Your task to perform on an android device: Toggle the flashlight Image 0: 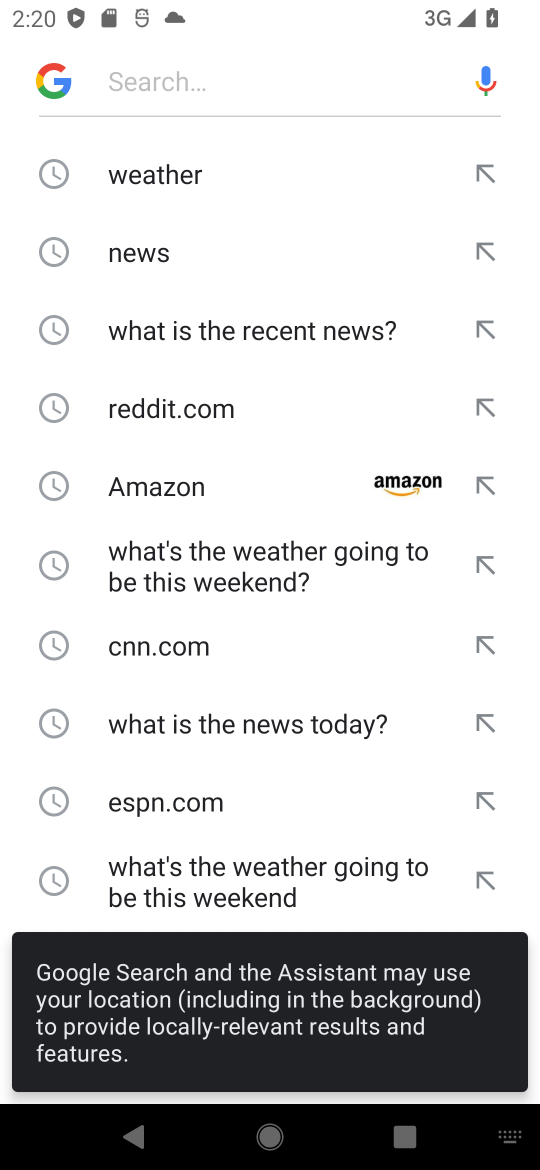
Step 0: press home button
Your task to perform on an android device: Toggle the flashlight Image 1: 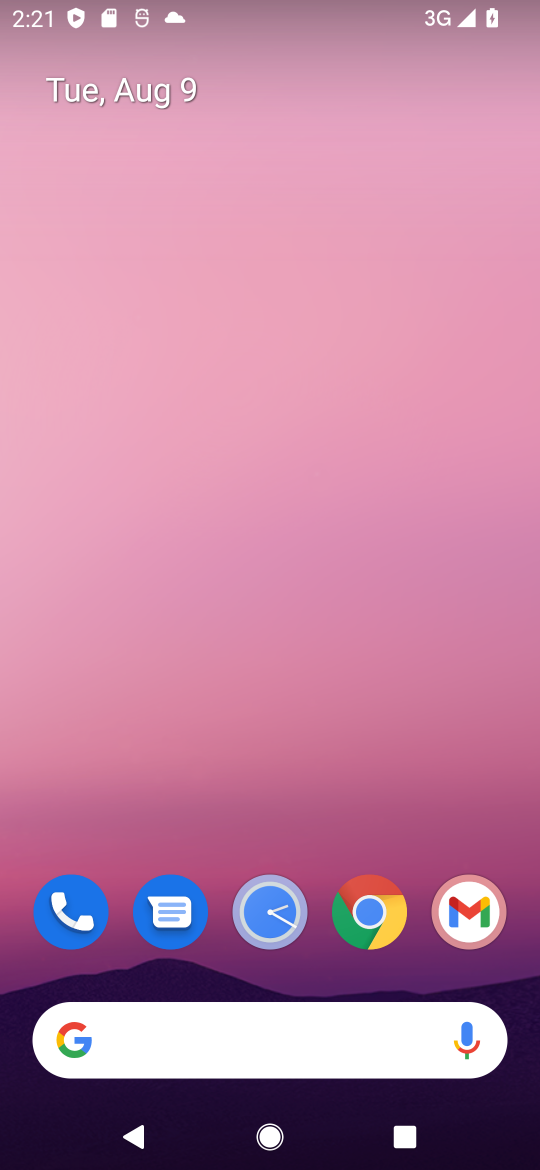
Step 1: drag from (316, 837) to (252, 24)
Your task to perform on an android device: Toggle the flashlight Image 2: 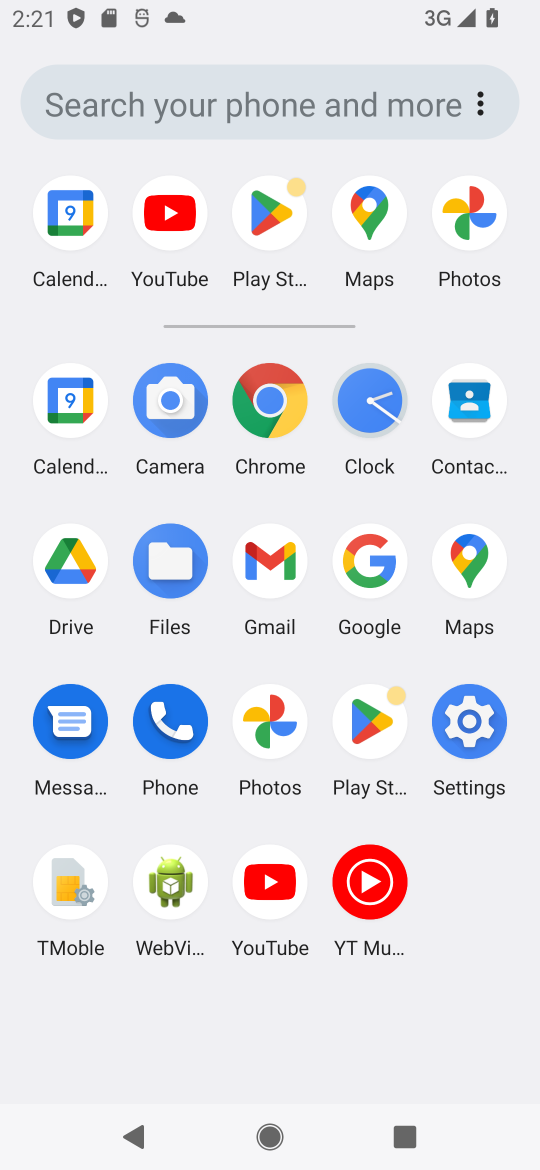
Step 2: click (478, 723)
Your task to perform on an android device: Toggle the flashlight Image 3: 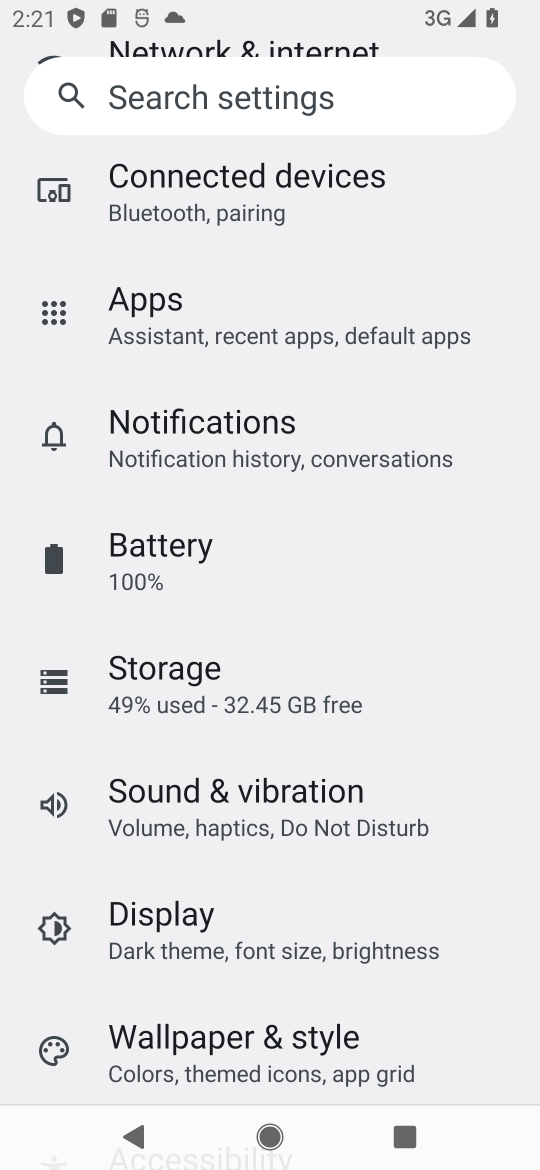
Step 3: click (148, 900)
Your task to perform on an android device: Toggle the flashlight Image 4: 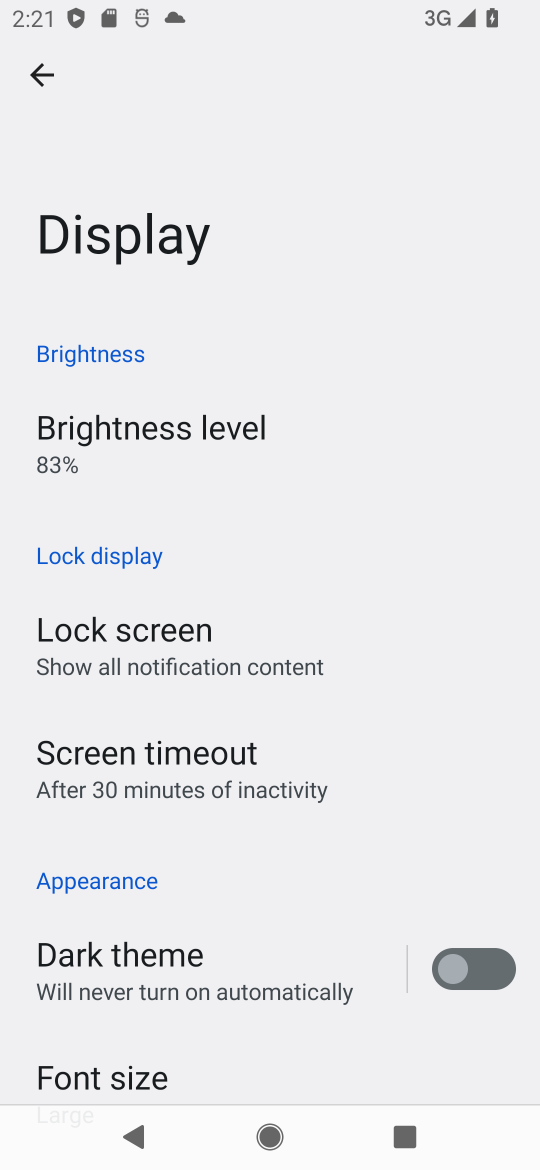
Step 4: task complete